Your task to perform on an android device: turn pop-ups off in chrome Image 0: 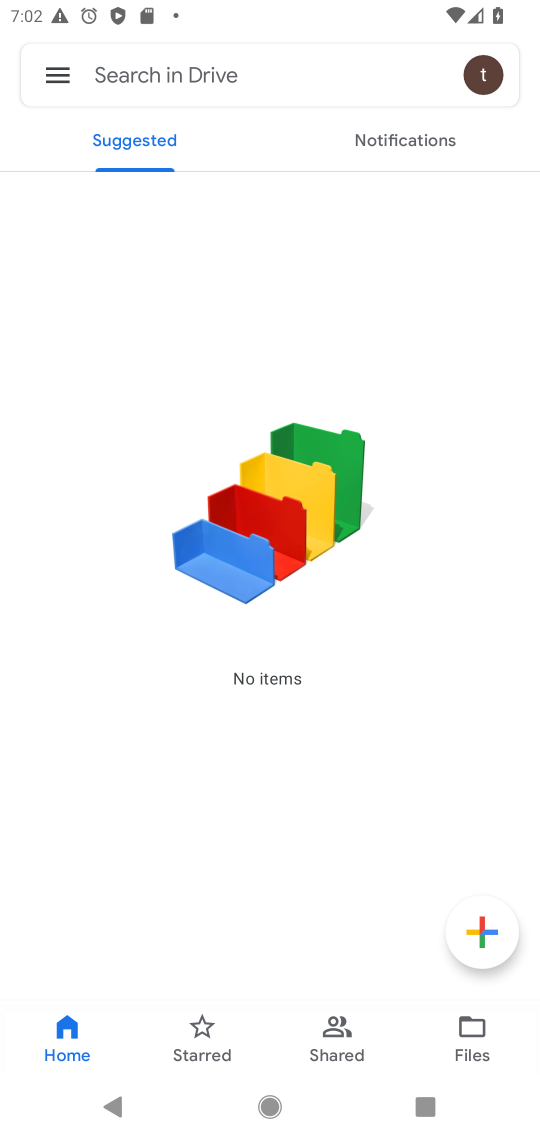
Step 0: press home button
Your task to perform on an android device: turn pop-ups off in chrome Image 1: 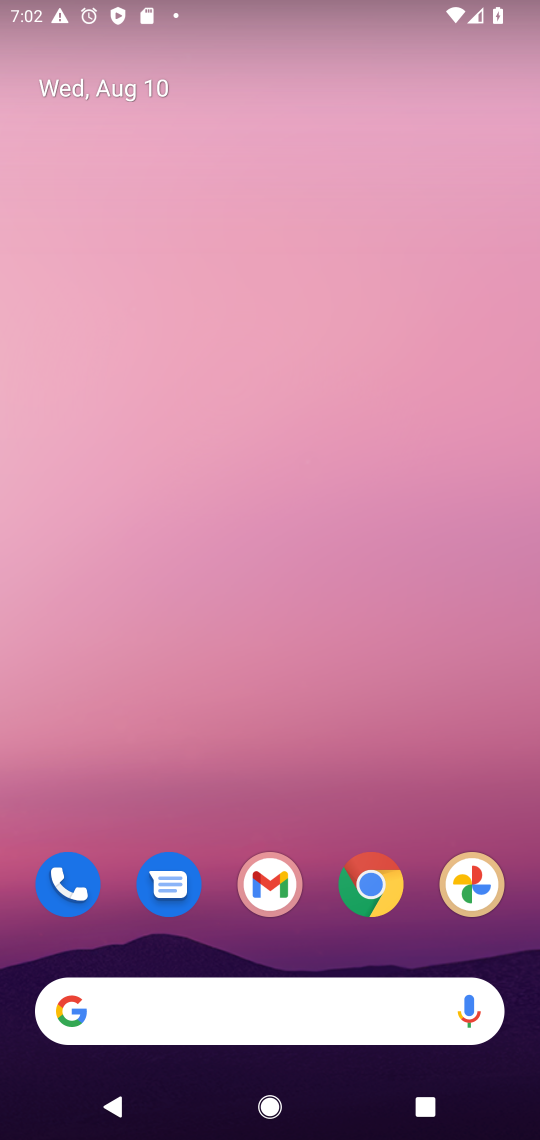
Step 1: click (356, 883)
Your task to perform on an android device: turn pop-ups off in chrome Image 2: 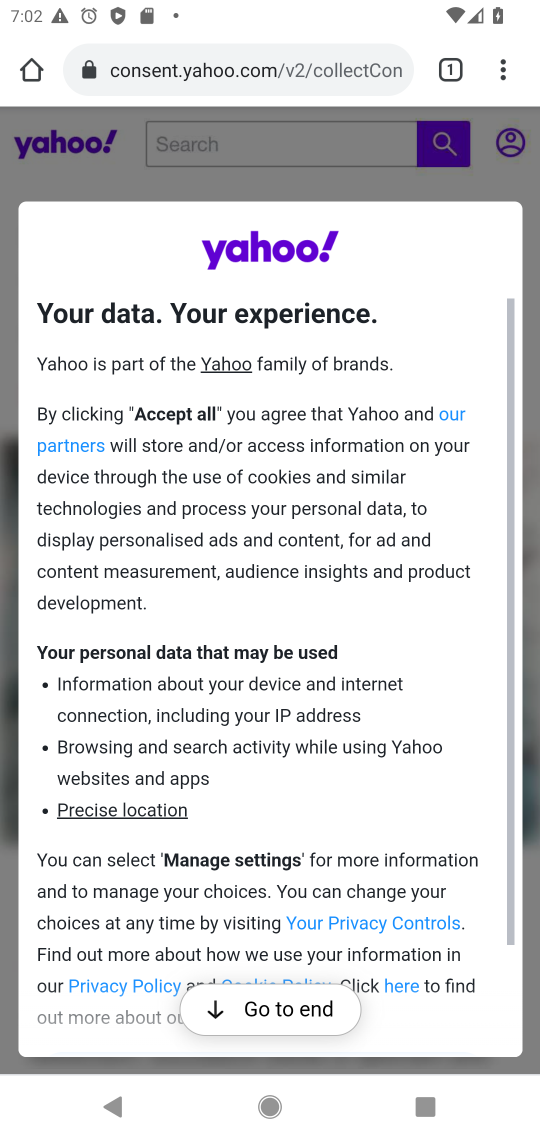
Step 2: click (504, 66)
Your task to perform on an android device: turn pop-ups off in chrome Image 3: 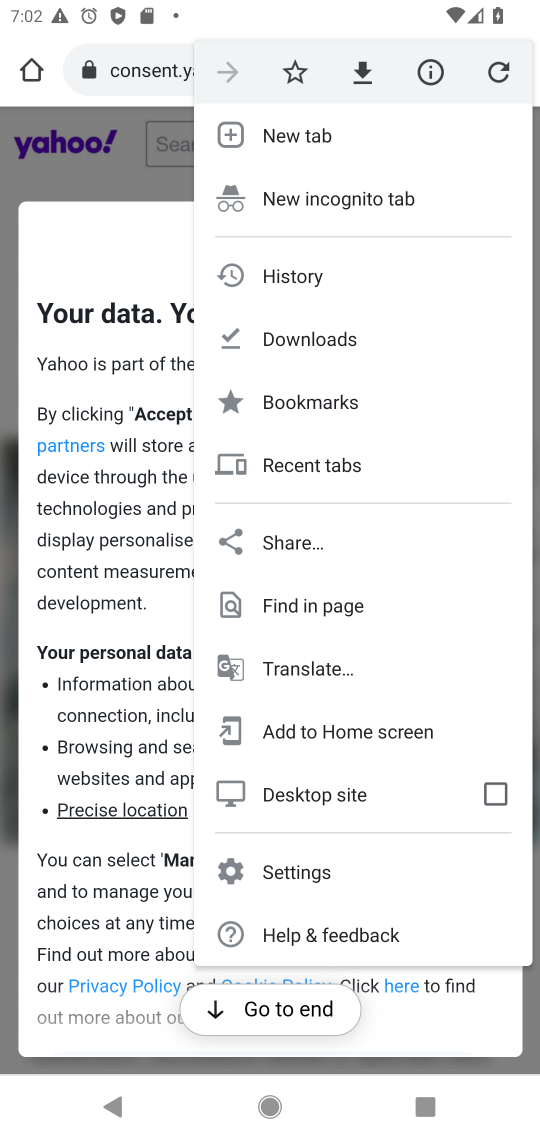
Step 3: click (284, 867)
Your task to perform on an android device: turn pop-ups off in chrome Image 4: 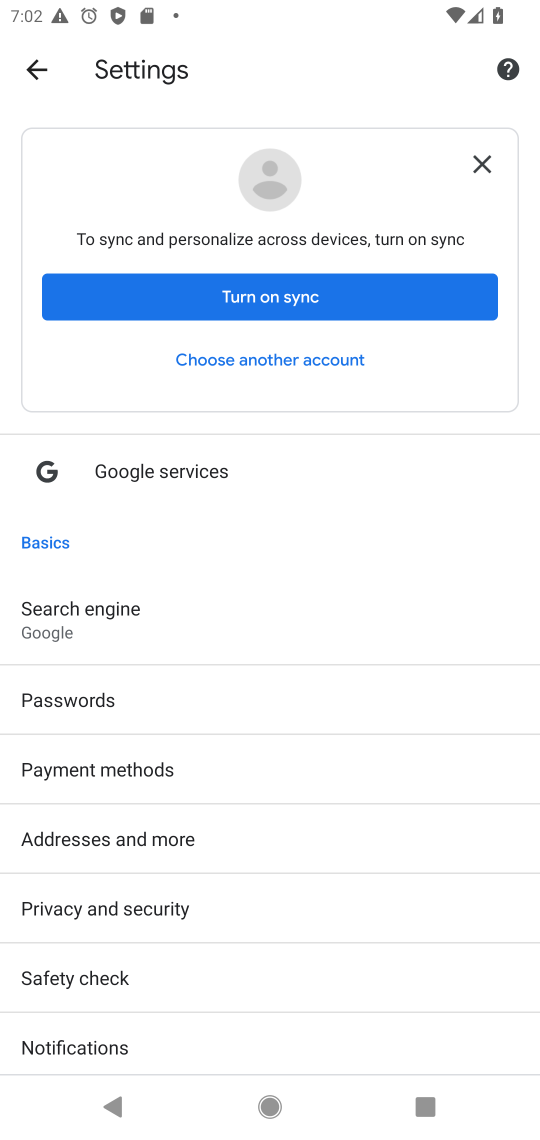
Step 4: drag from (347, 1012) to (350, 592)
Your task to perform on an android device: turn pop-ups off in chrome Image 5: 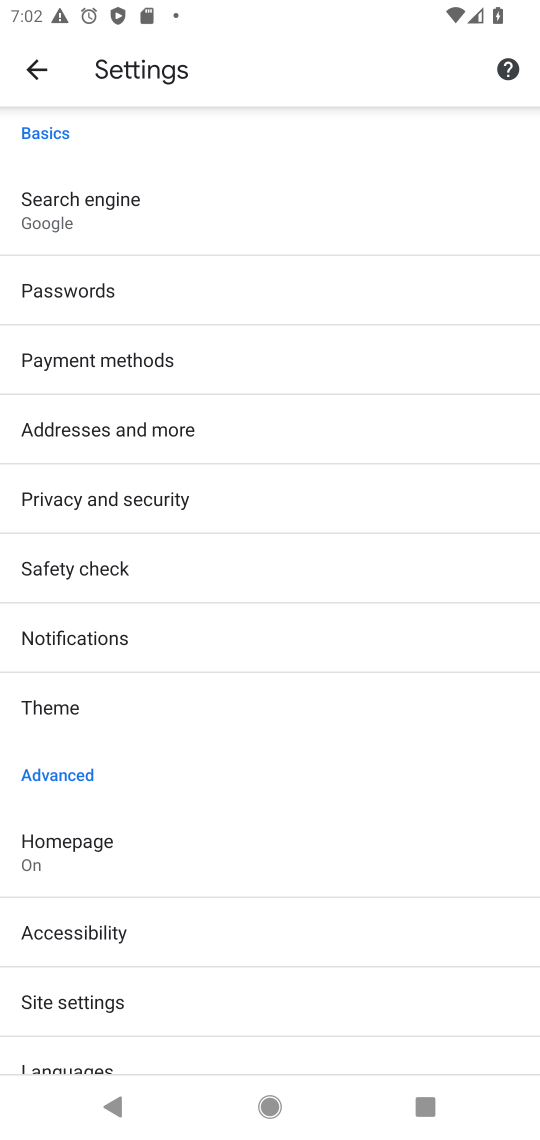
Step 5: click (67, 998)
Your task to perform on an android device: turn pop-ups off in chrome Image 6: 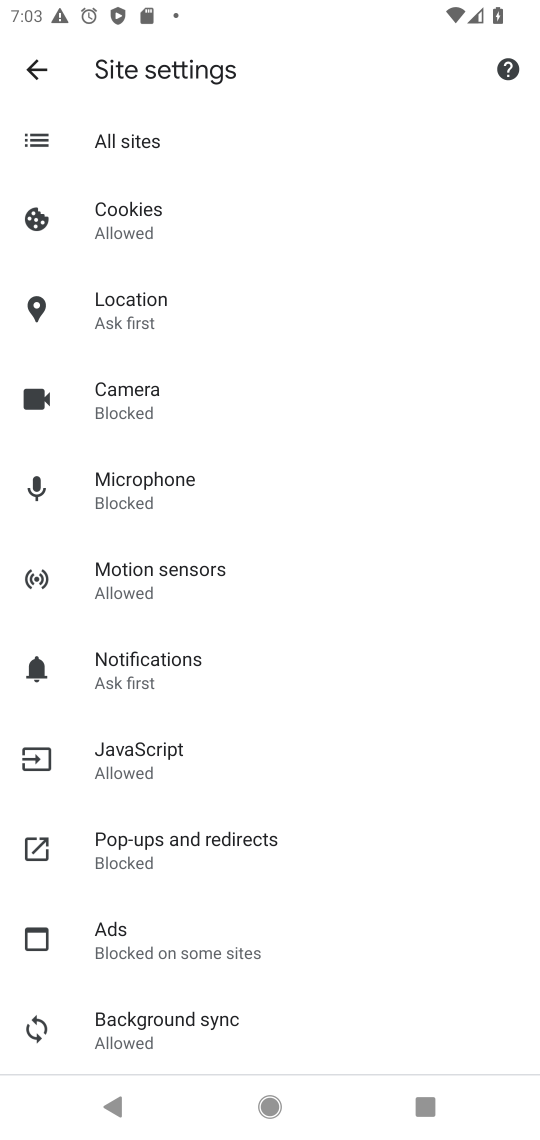
Step 6: click (166, 863)
Your task to perform on an android device: turn pop-ups off in chrome Image 7: 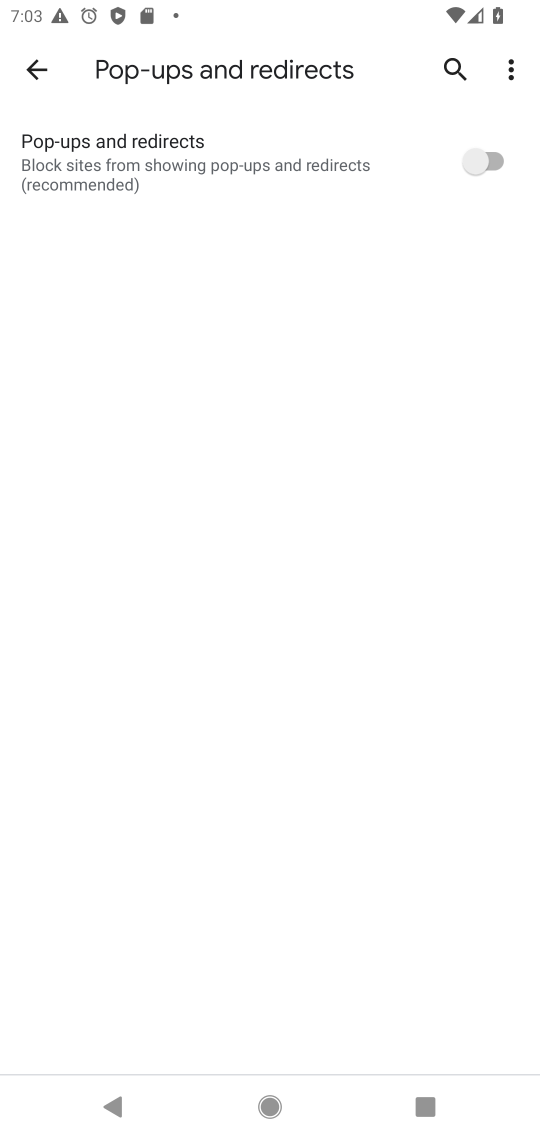
Step 7: click (486, 179)
Your task to perform on an android device: turn pop-ups off in chrome Image 8: 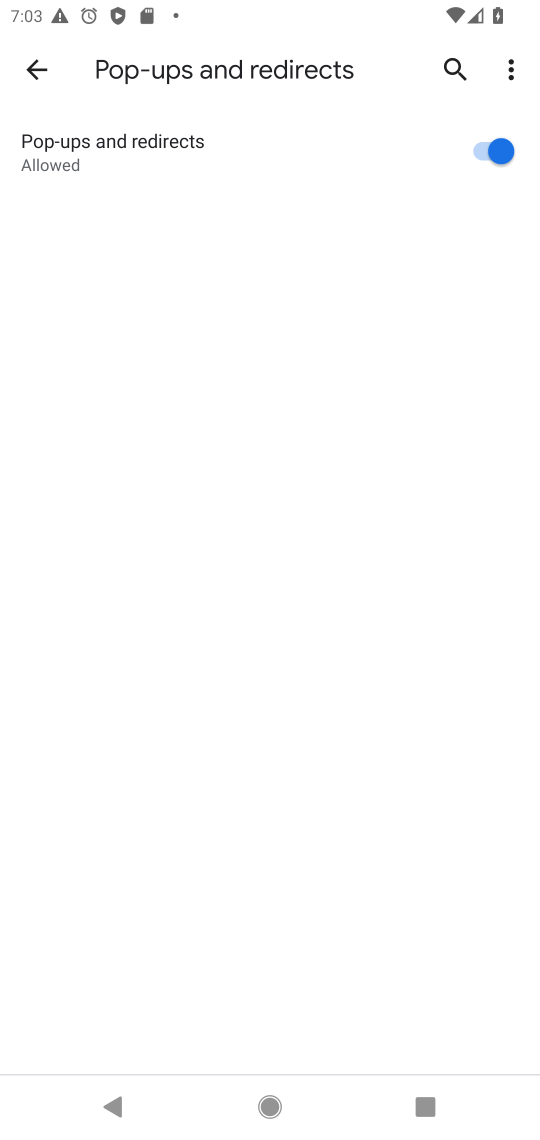
Step 8: click (486, 179)
Your task to perform on an android device: turn pop-ups off in chrome Image 9: 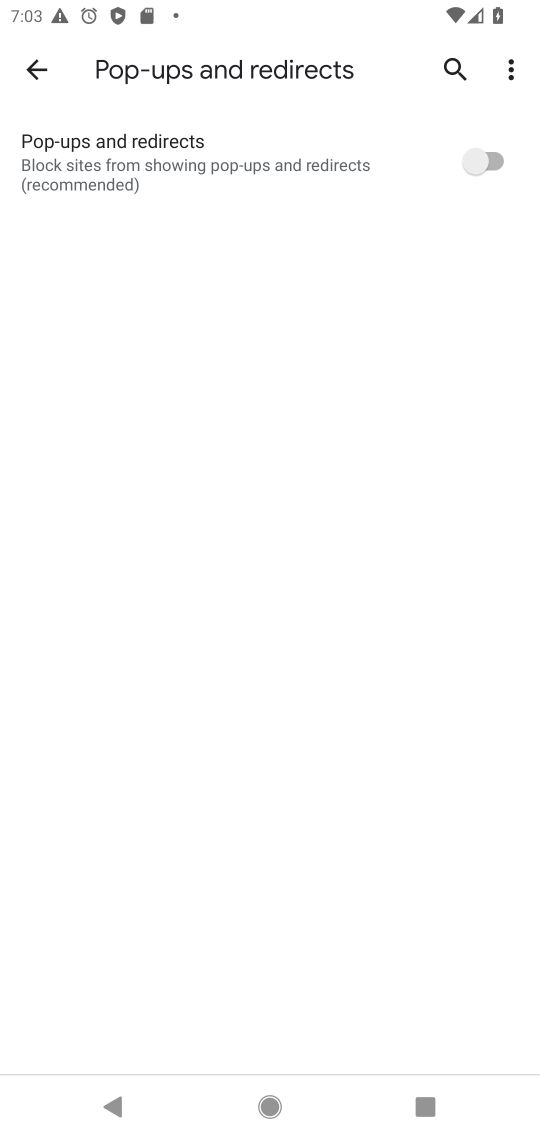
Step 9: task complete